Your task to perform on an android device: Open Chrome and go to the settings page Image 0: 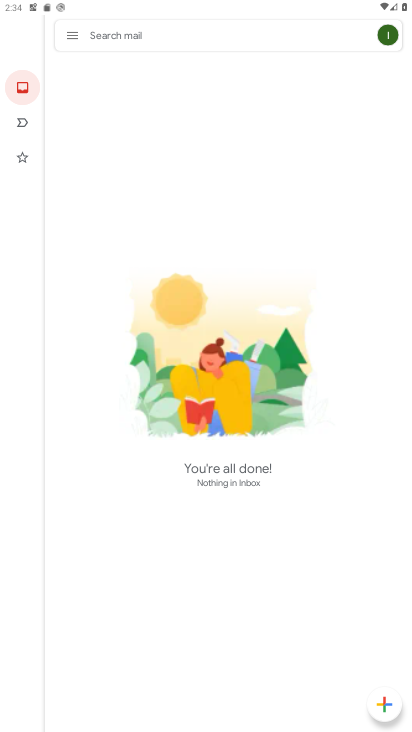
Step 0: drag from (310, 618) to (374, 365)
Your task to perform on an android device: Open Chrome and go to the settings page Image 1: 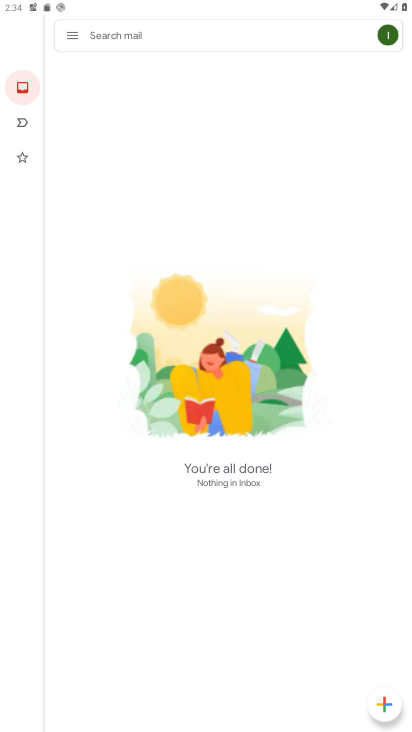
Step 1: drag from (263, 556) to (399, 279)
Your task to perform on an android device: Open Chrome and go to the settings page Image 2: 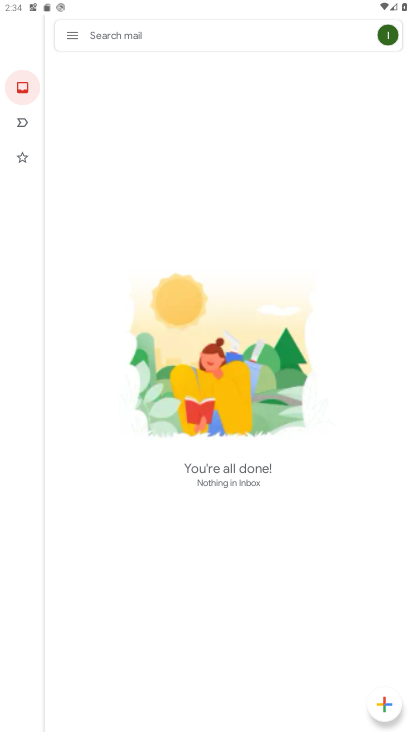
Step 2: click (65, 29)
Your task to perform on an android device: Open Chrome and go to the settings page Image 3: 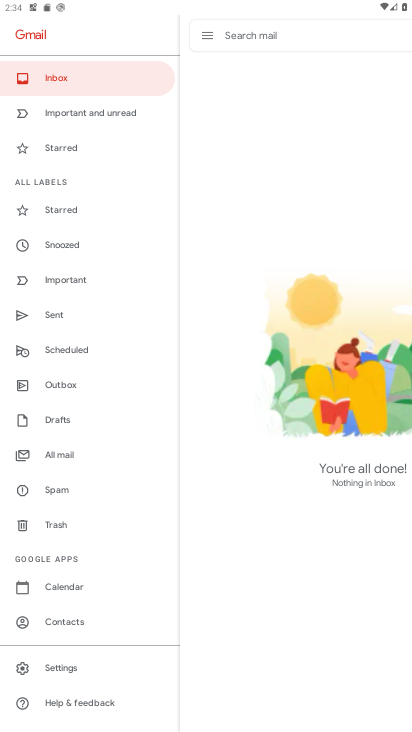
Step 3: press home button
Your task to perform on an android device: Open Chrome and go to the settings page Image 4: 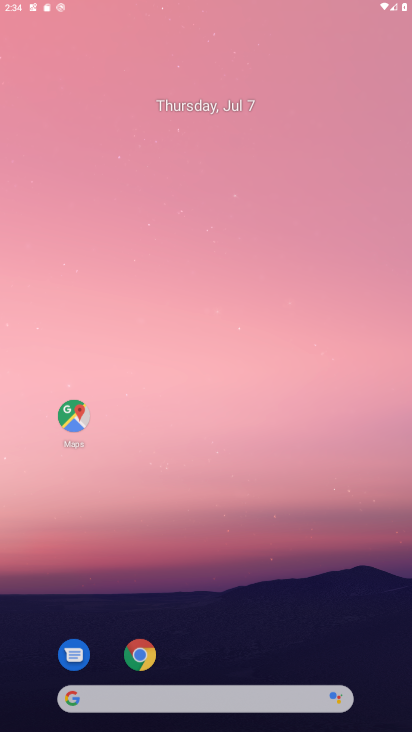
Step 4: drag from (226, 559) to (219, 129)
Your task to perform on an android device: Open Chrome and go to the settings page Image 5: 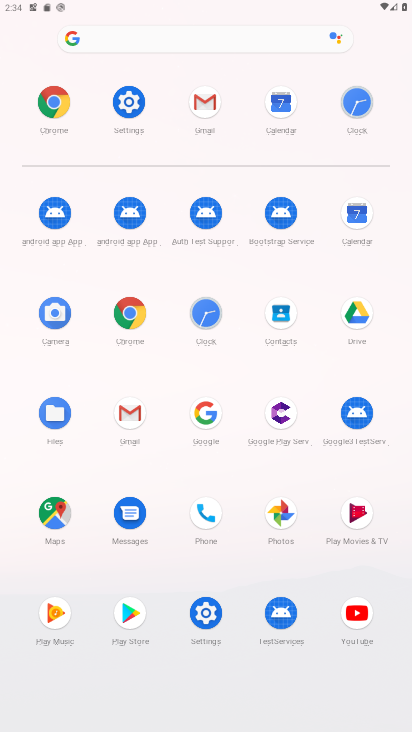
Step 5: click (139, 301)
Your task to perform on an android device: Open Chrome and go to the settings page Image 6: 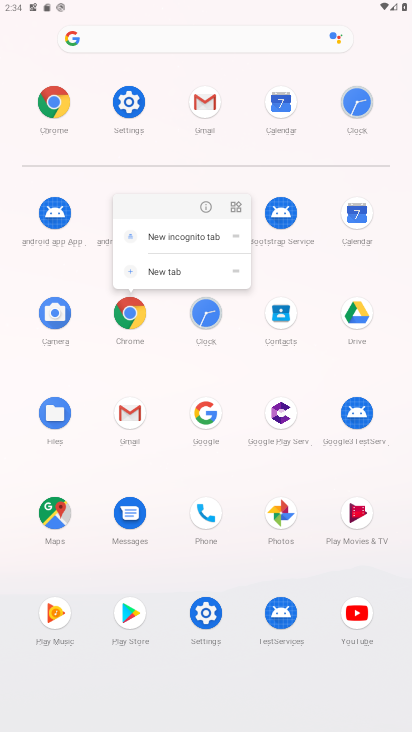
Step 6: click (208, 207)
Your task to perform on an android device: Open Chrome and go to the settings page Image 7: 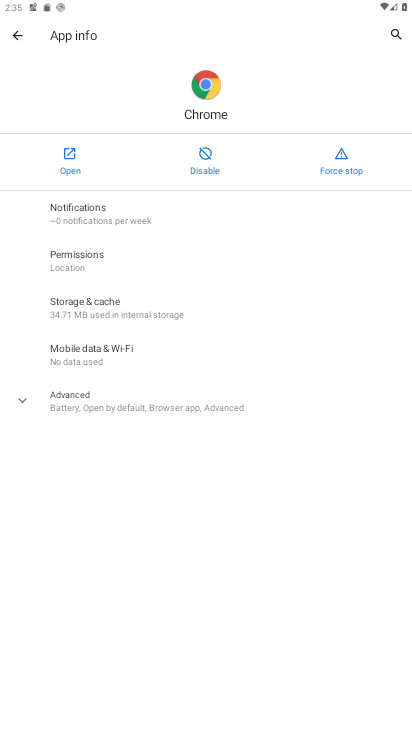
Step 7: click (83, 169)
Your task to perform on an android device: Open Chrome and go to the settings page Image 8: 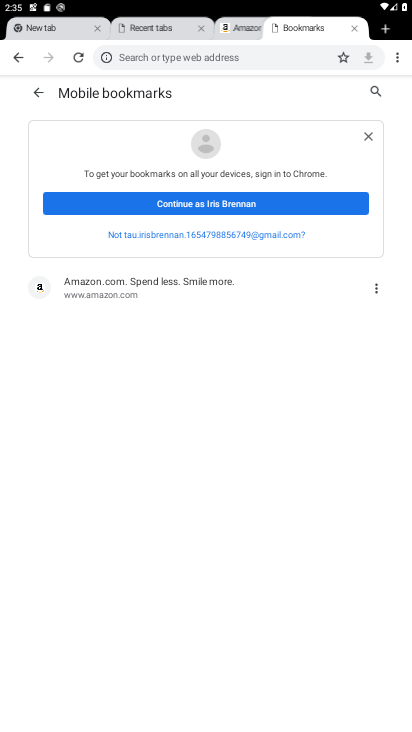
Step 8: click (397, 60)
Your task to perform on an android device: Open Chrome and go to the settings page Image 9: 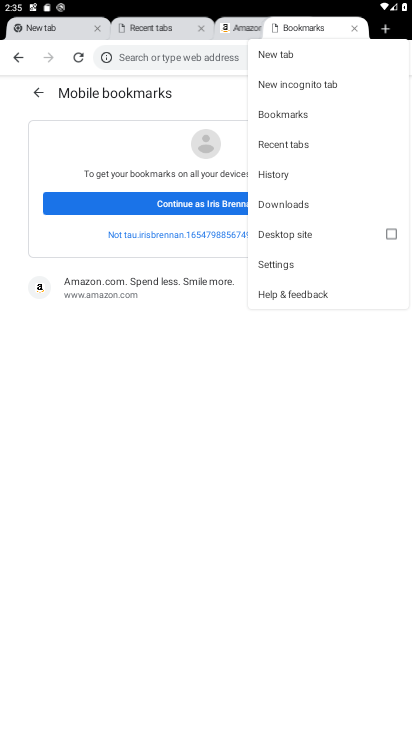
Step 9: click (285, 261)
Your task to perform on an android device: Open Chrome and go to the settings page Image 10: 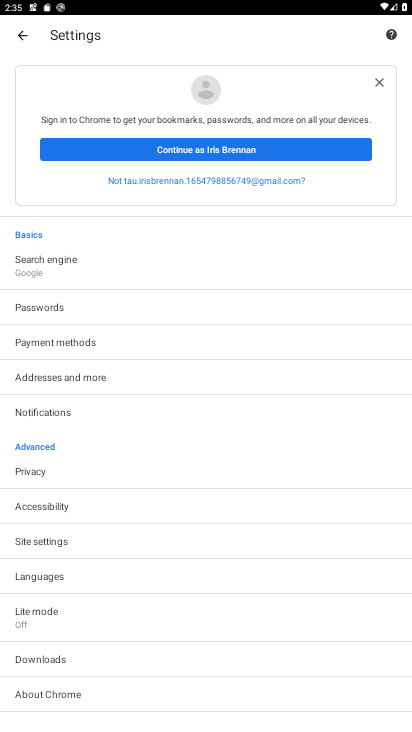
Step 10: task complete